Your task to perform on an android device: Find coffee shops on Maps Image 0: 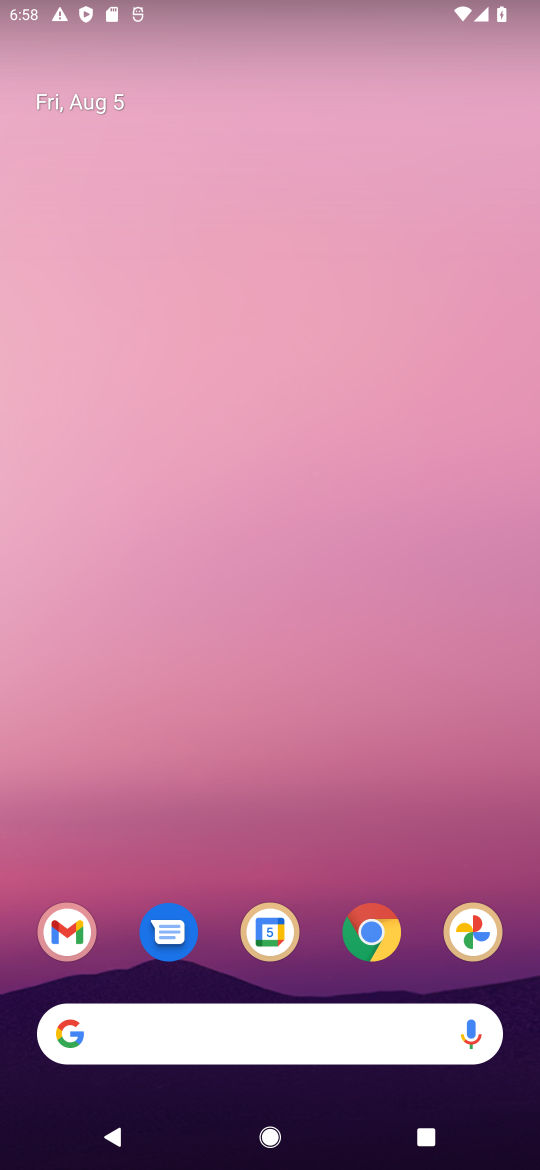
Step 0: drag from (181, 1041) to (162, 311)
Your task to perform on an android device: Find coffee shops on Maps Image 1: 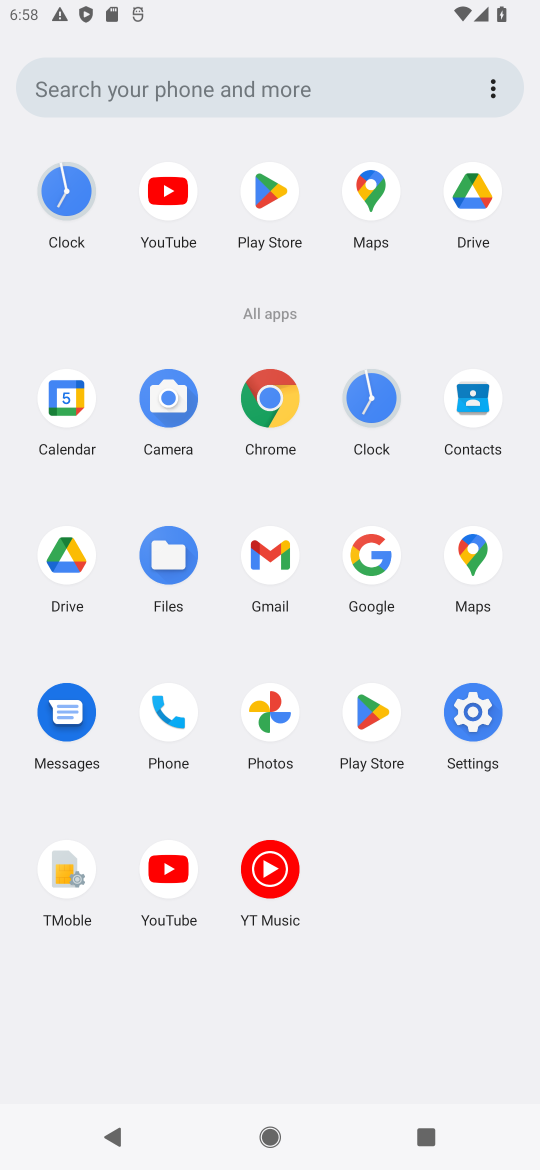
Step 1: click (370, 187)
Your task to perform on an android device: Find coffee shops on Maps Image 2: 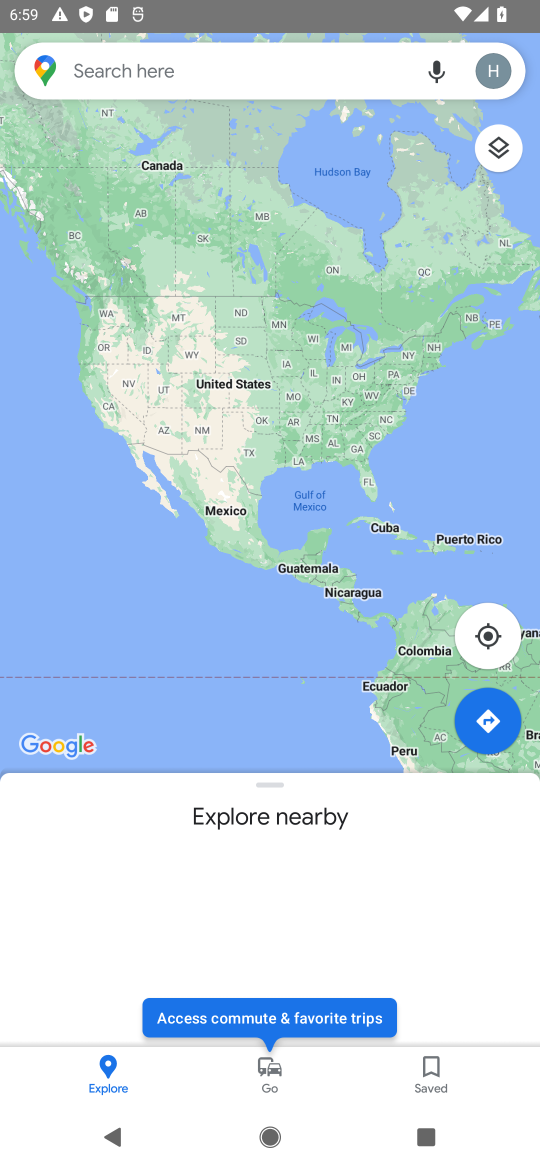
Step 2: click (272, 68)
Your task to perform on an android device: Find coffee shops on Maps Image 3: 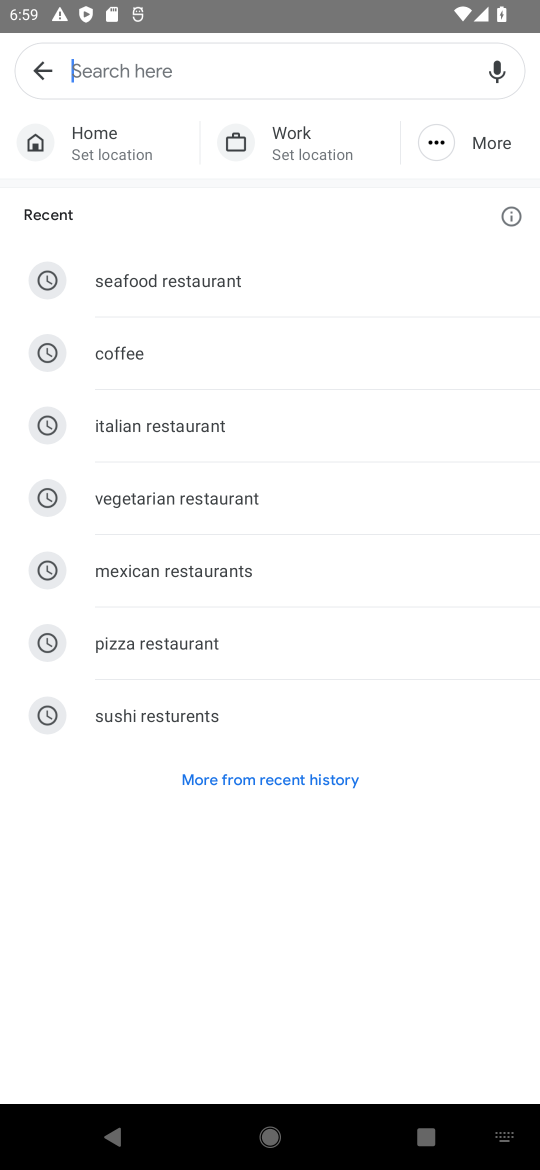
Step 3: type "coffee shops"
Your task to perform on an android device: Find coffee shops on Maps Image 4: 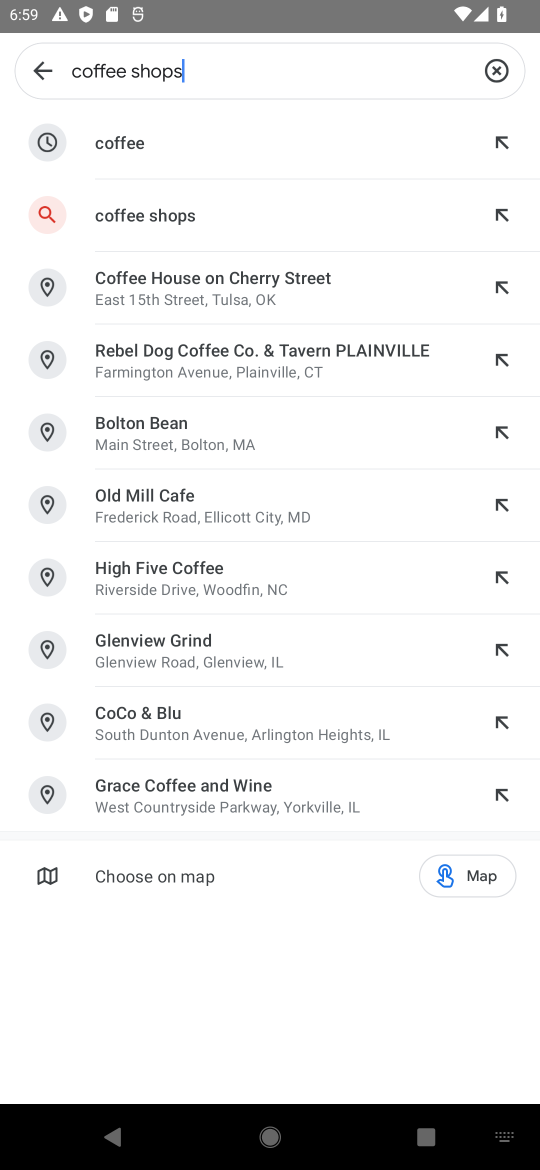
Step 4: click (154, 214)
Your task to perform on an android device: Find coffee shops on Maps Image 5: 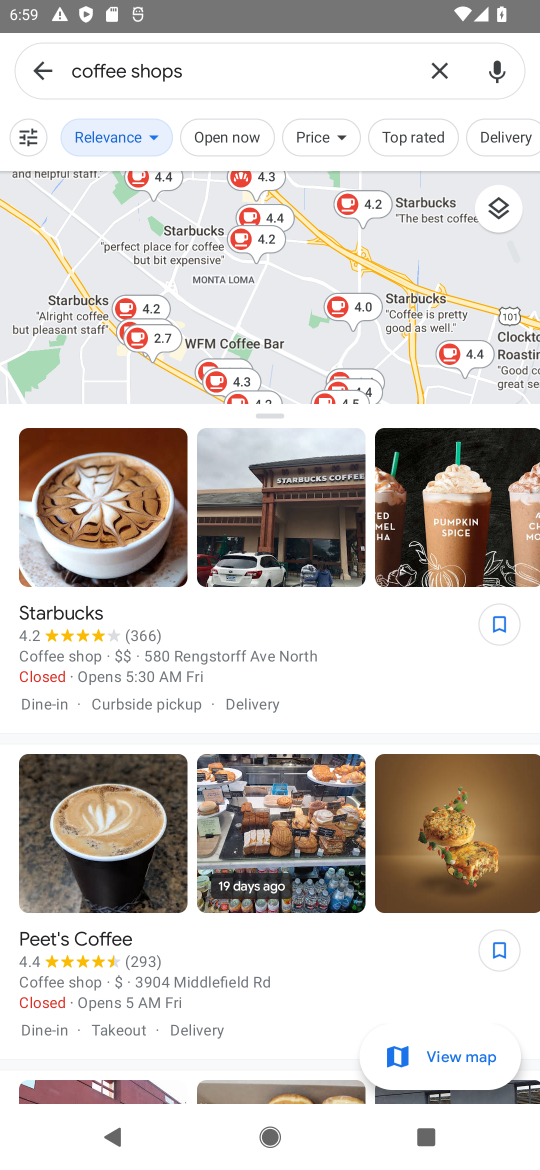
Step 5: task complete